Your task to perform on an android device: read, delete, or share a saved page in the chrome app Image 0: 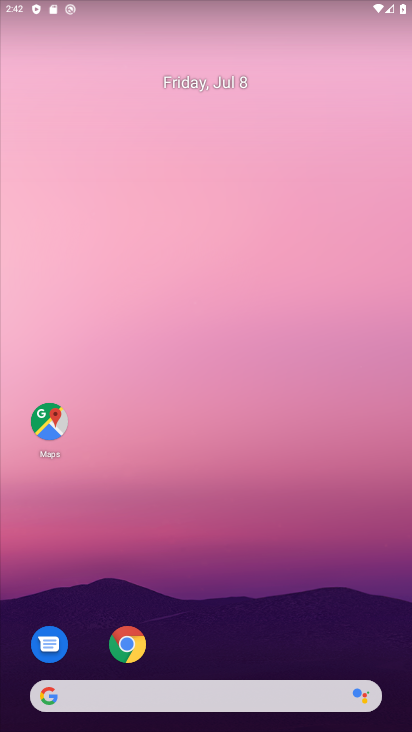
Step 0: drag from (248, 628) to (316, 71)
Your task to perform on an android device: read, delete, or share a saved page in the chrome app Image 1: 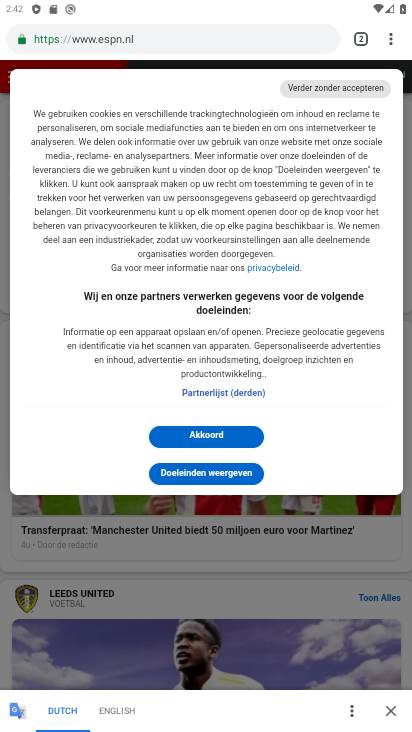
Step 1: drag from (391, 44) to (312, 253)
Your task to perform on an android device: read, delete, or share a saved page in the chrome app Image 2: 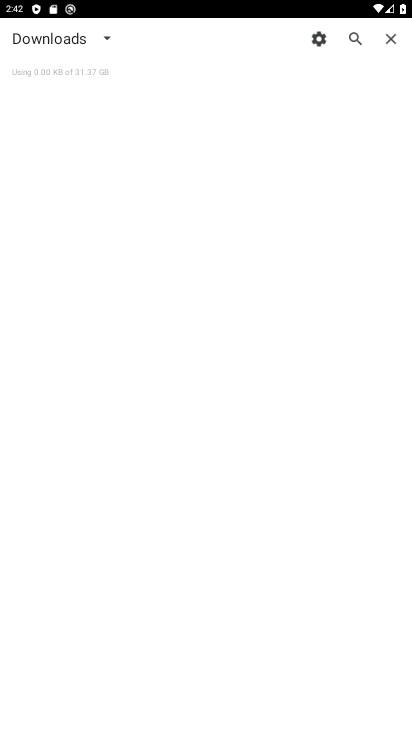
Step 2: click (111, 38)
Your task to perform on an android device: read, delete, or share a saved page in the chrome app Image 3: 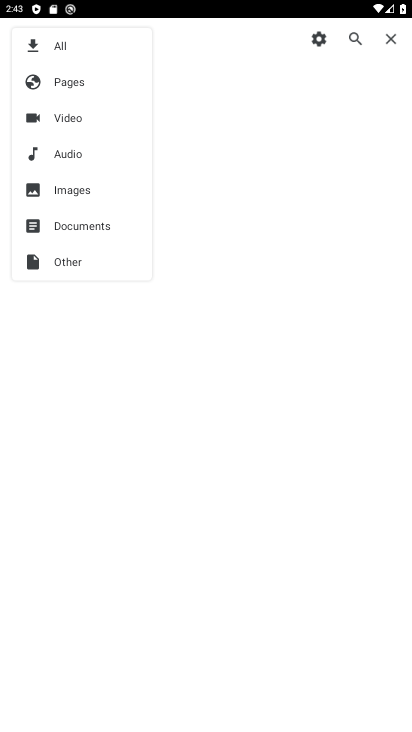
Step 3: click (101, 82)
Your task to perform on an android device: read, delete, or share a saved page in the chrome app Image 4: 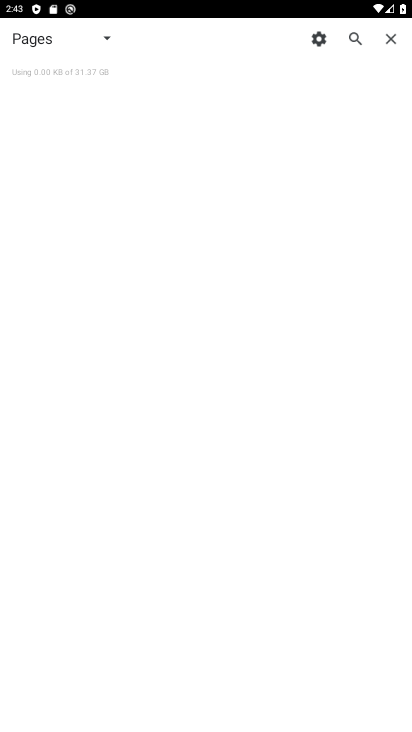
Step 4: task complete